Your task to perform on an android device: When is my next meeting? Image 0: 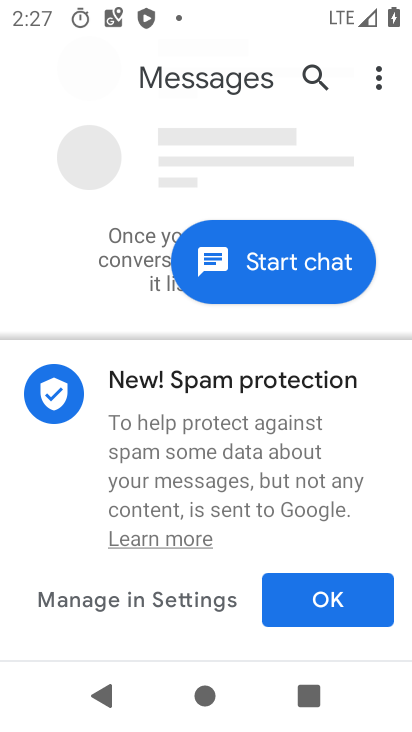
Step 0: press home button
Your task to perform on an android device: When is my next meeting? Image 1: 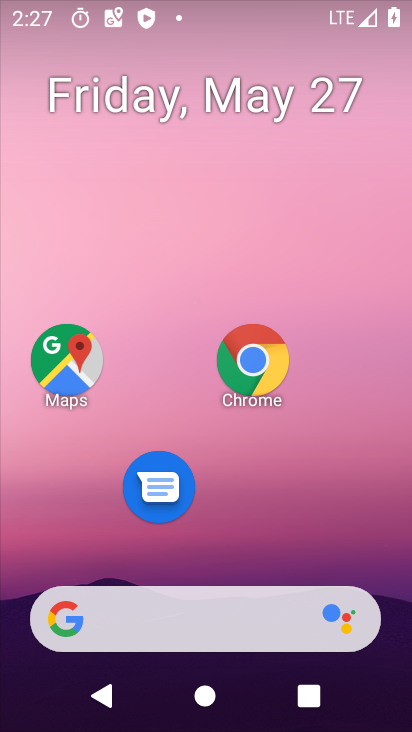
Step 1: drag from (241, 533) to (241, 114)
Your task to perform on an android device: When is my next meeting? Image 2: 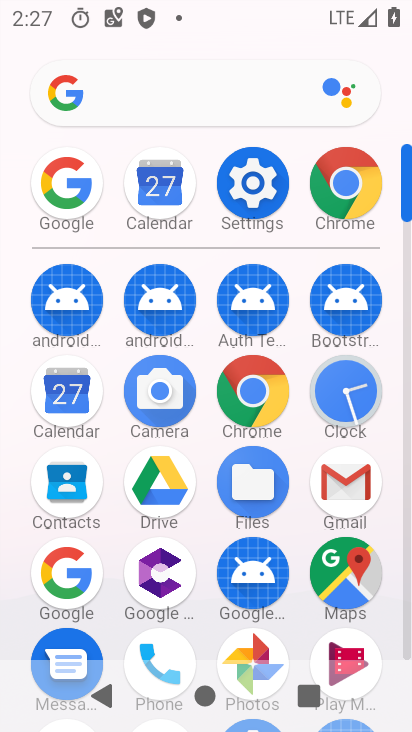
Step 2: drag from (203, 508) to (203, 274)
Your task to perform on an android device: When is my next meeting? Image 3: 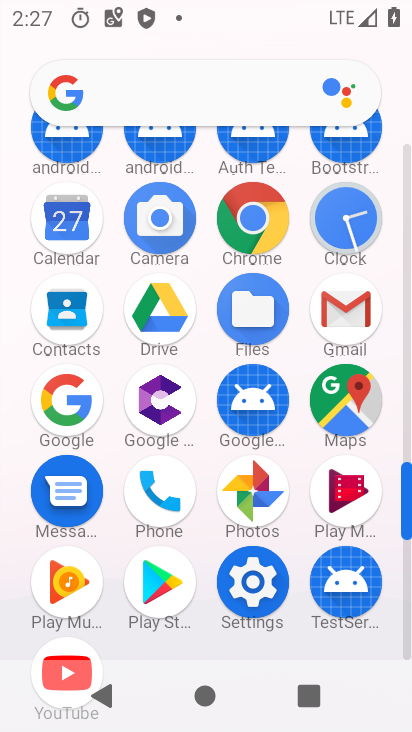
Step 3: click (64, 212)
Your task to perform on an android device: When is my next meeting? Image 4: 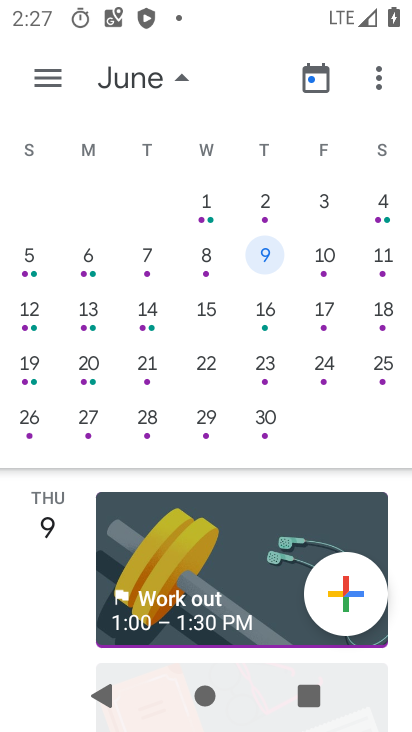
Step 4: drag from (42, 407) to (408, 381)
Your task to perform on an android device: When is my next meeting? Image 5: 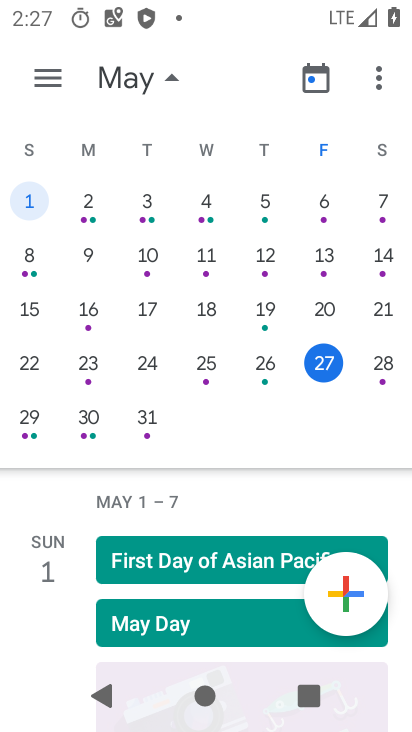
Step 5: click (323, 365)
Your task to perform on an android device: When is my next meeting? Image 6: 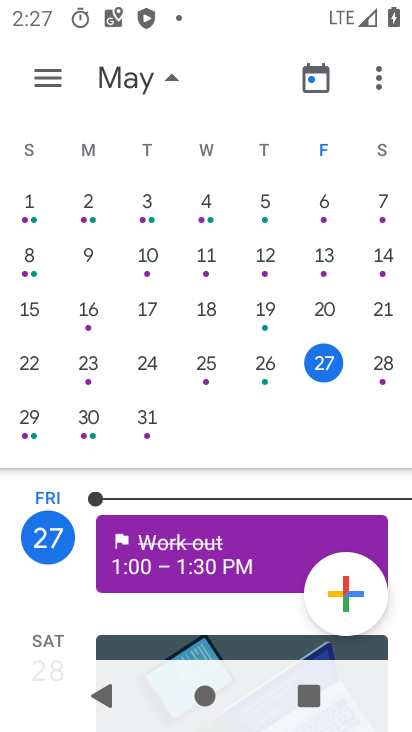
Step 6: task complete